Your task to perform on an android device: Go to network settings Image 0: 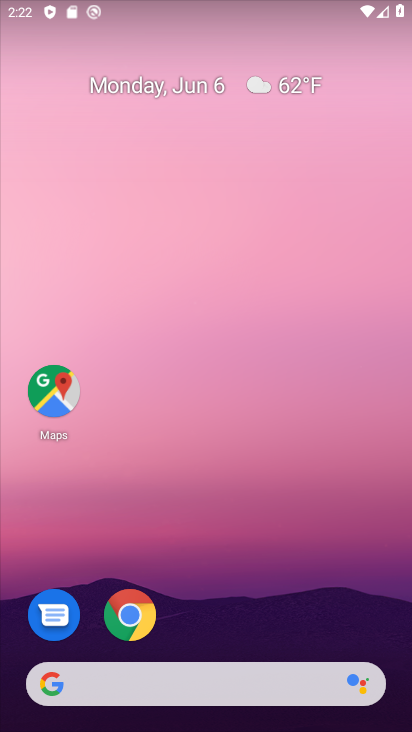
Step 0: drag from (168, 673) to (249, 61)
Your task to perform on an android device: Go to network settings Image 1: 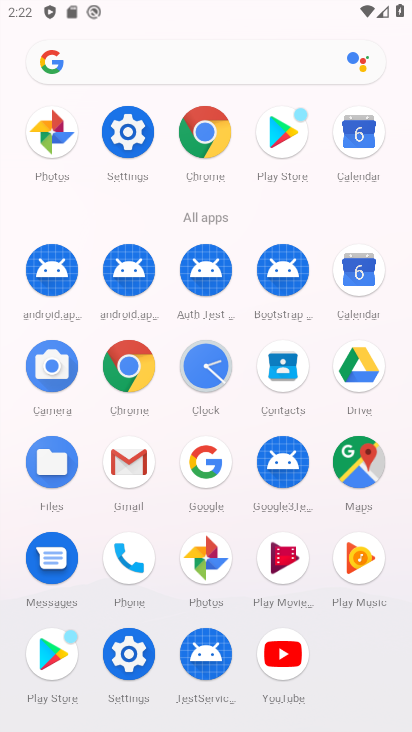
Step 1: click (123, 146)
Your task to perform on an android device: Go to network settings Image 2: 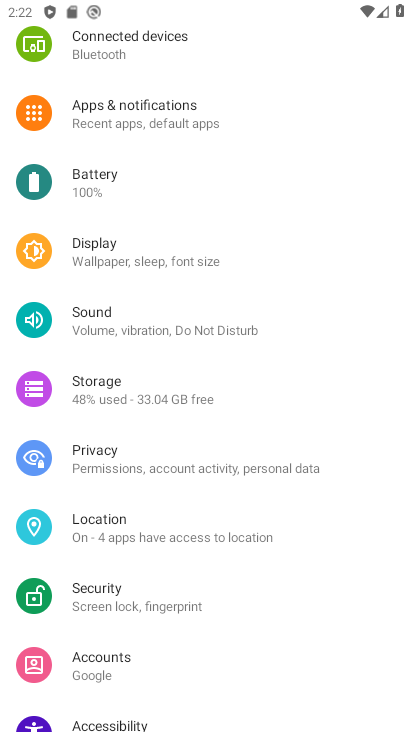
Step 2: drag from (188, 106) to (208, 475)
Your task to perform on an android device: Go to network settings Image 3: 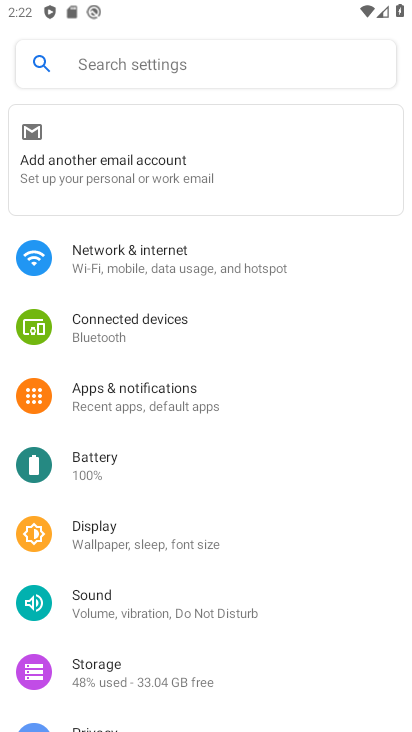
Step 3: click (151, 265)
Your task to perform on an android device: Go to network settings Image 4: 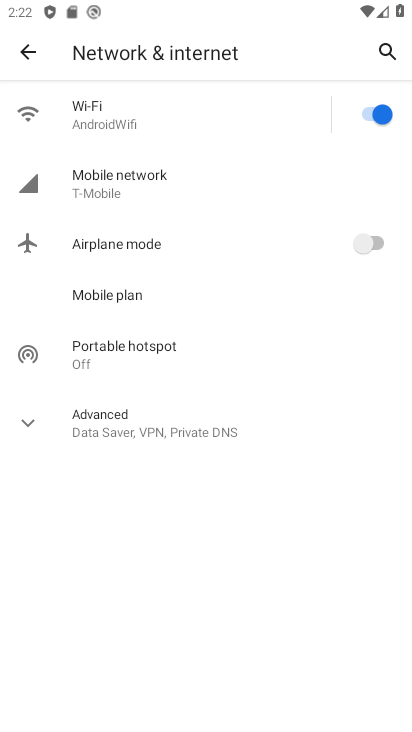
Step 4: task complete